Your task to perform on an android device: turn off sleep mode Image 0: 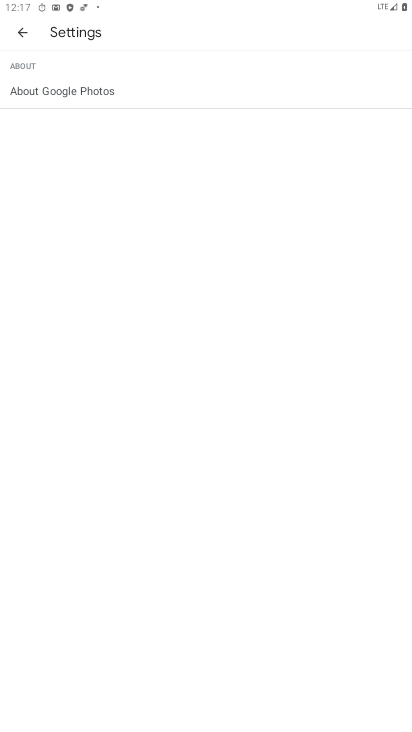
Step 0: press home button
Your task to perform on an android device: turn off sleep mode Image 1: 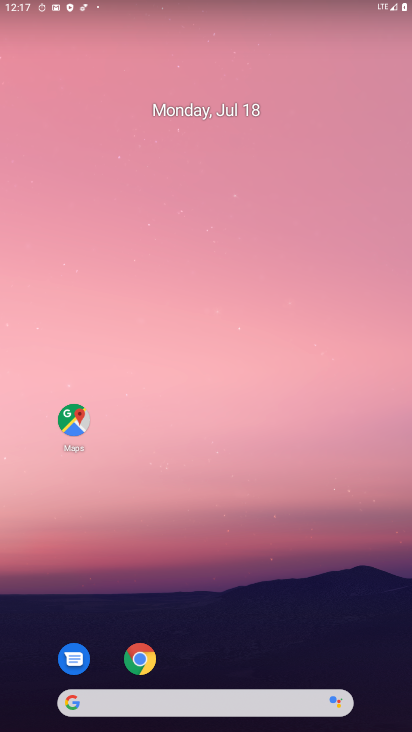
Step 1: drag from (223, 670) to (212, 254)
Your task to perform on an android device: turn off sleep mode Image 2: 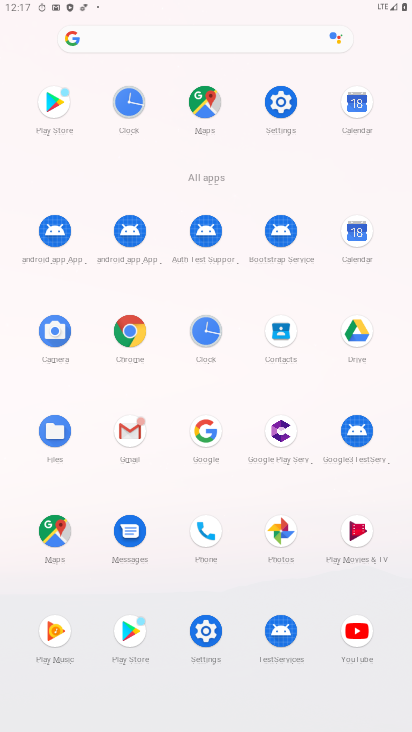
Step 2: click (209, 631)
Your task to perform on an android device: turn off sleep mode Image 3: 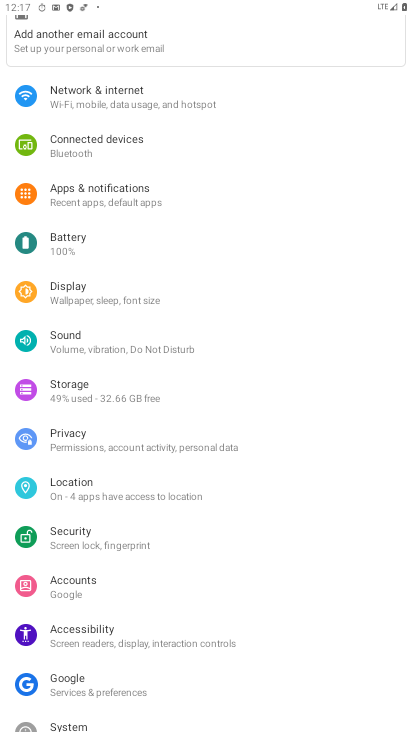
Step 3: drag from (230, 135) to (281, 629)
Your task to perform on an android device: turn off sleep mode Image 4: 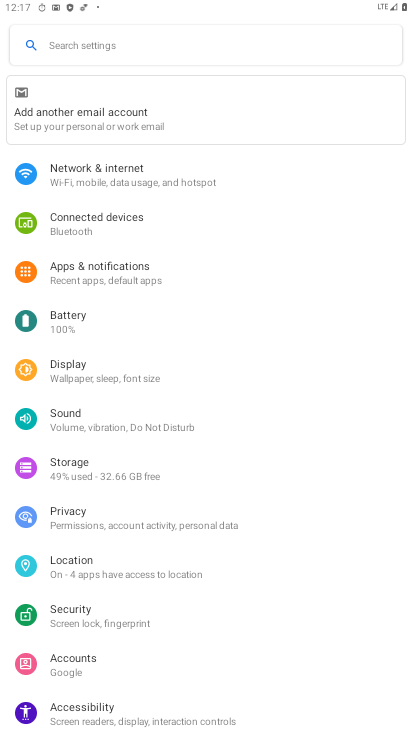
Step 4: click (175, 43)
Your task to perform on an android device: turn off sleep mode Image 5: 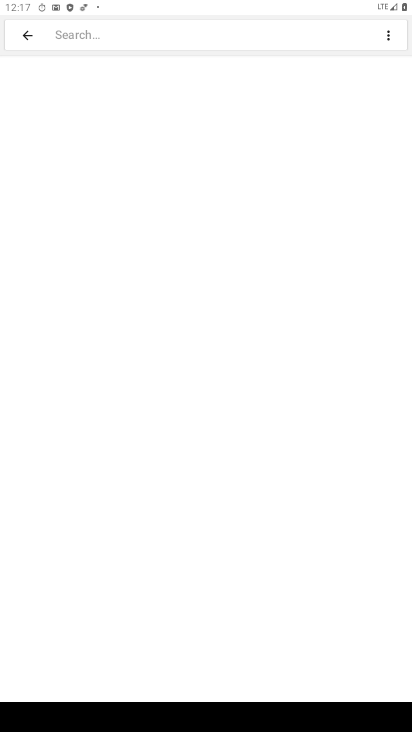
Step 5: type "sleep mode"
Your task to perform on an android device: turn off sleep mode Image 6: 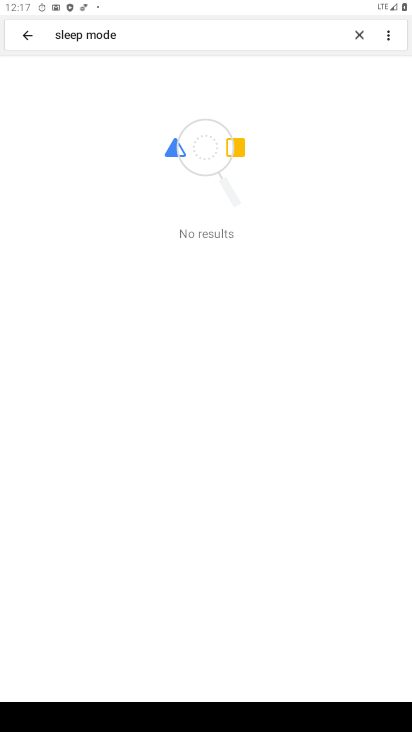
Step 6: task complete